Your task to perform on an android device: How much does a 2 bedroom apartment rent for in San Francisco? Image 0: 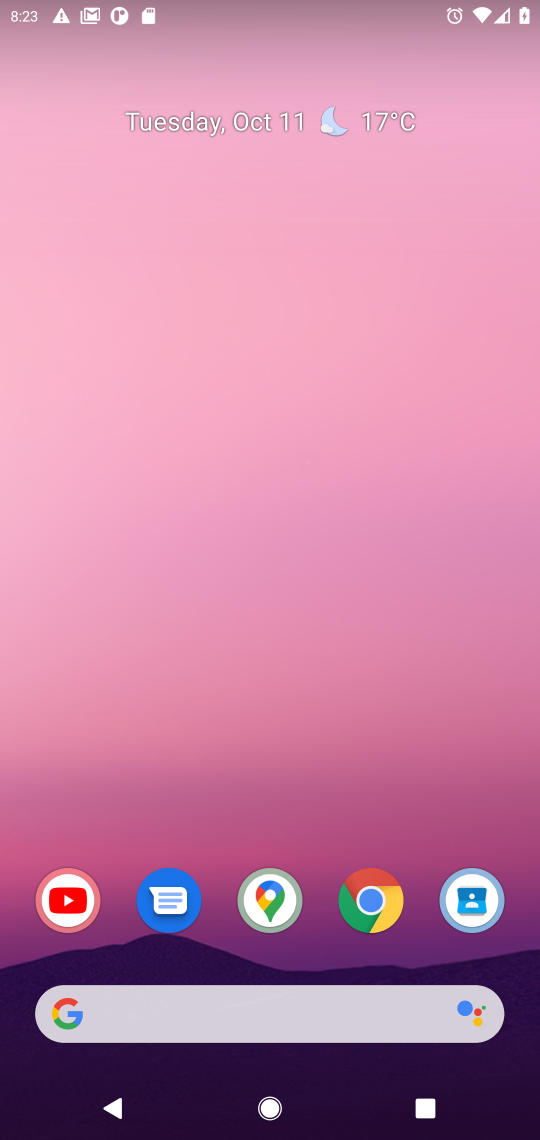
Step 0: click (382, 893)
Your task to perform on an android device: How much does a 2 bedroom apartment rent for in San Francisco? Image 1: 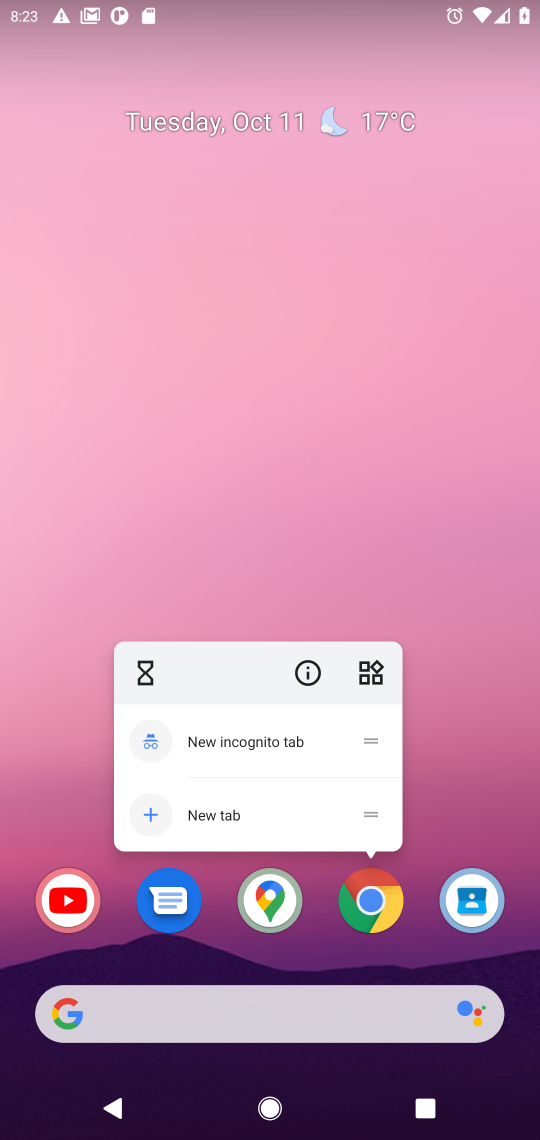
Step 1: click (382, 895)
Your task to perform on an android device: How much does a 2 bedroom apartment rent for in San Francisco? Image 2: 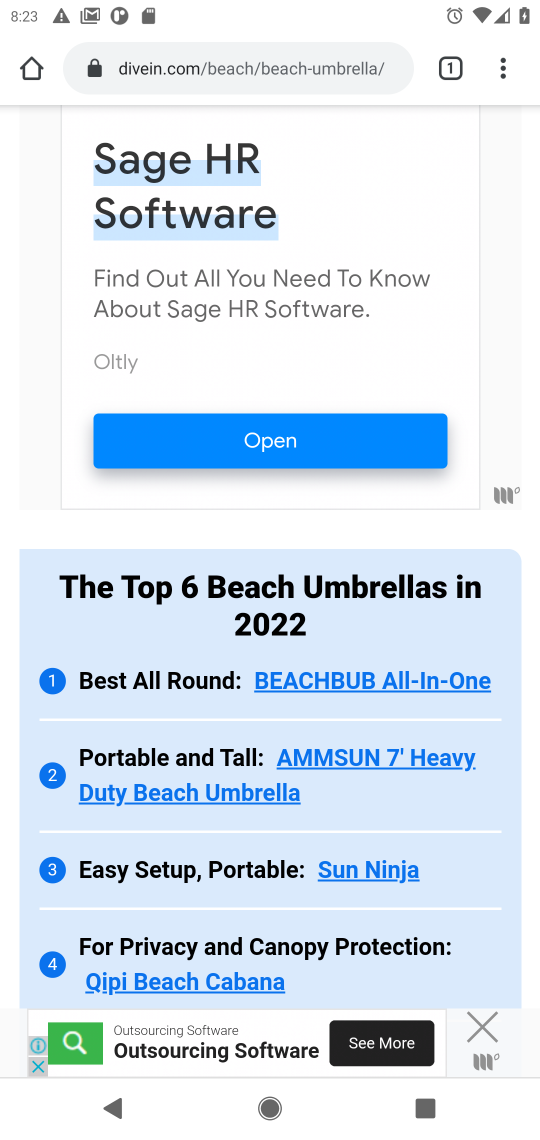
Step 2: click (363, 57)
Your task to perform on an android device: How much does a 2 bedroom apartment rent for in San Francisco? Image 3: 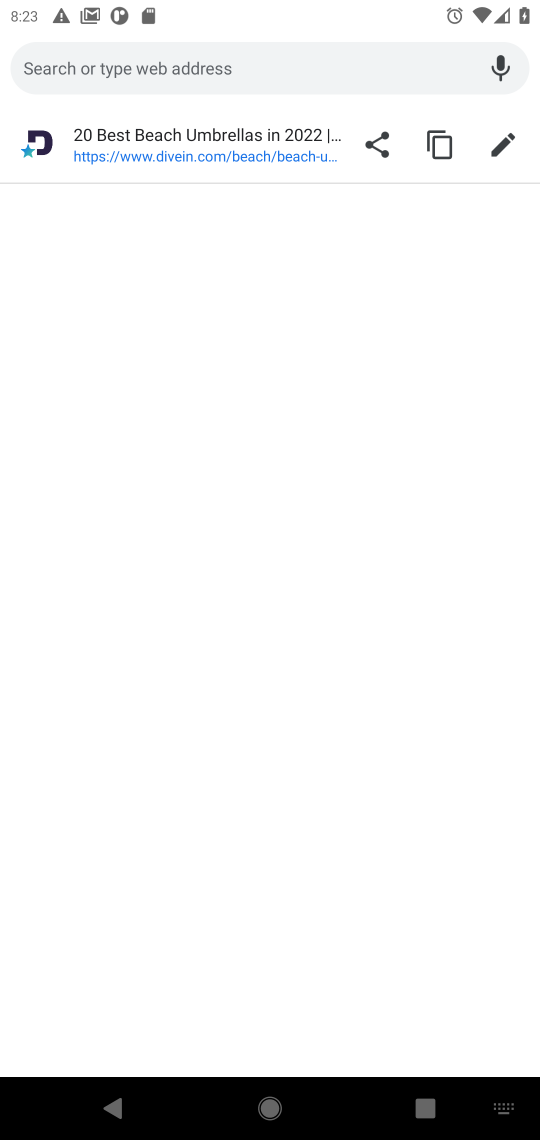
Step 3: type "2 bedroom apartment rent for in San Francisco"
Your task to perform on an android device: How much does a 2 bedroom apartment rent for in San Francisco? Image 4: 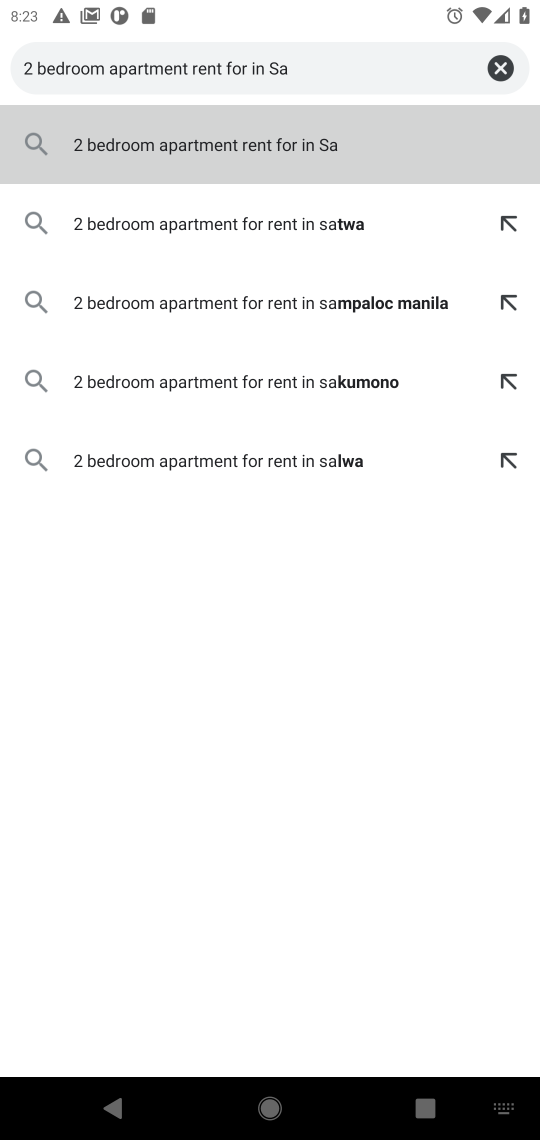
Step 4: press enter
Your task to perform on an android device: How much does a 2 bedroom apartment rent for in San Francisco? Image 5: 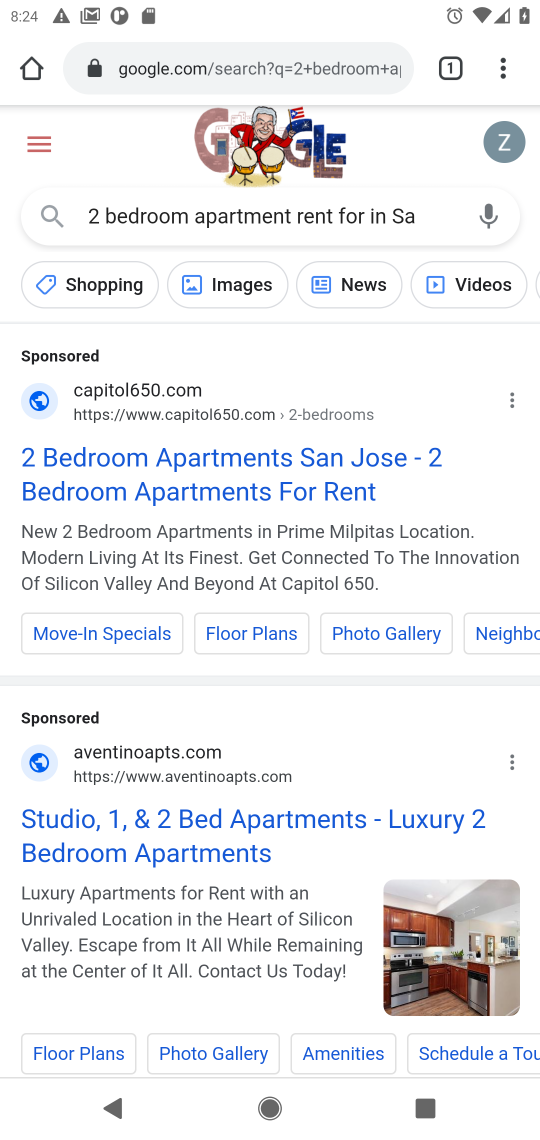
Step 5: drag from (178, 908) to (388, 325)
Your task to perform on an android device: How much does a 2 bedroom apartment rent for in San Francisco? Image 6: 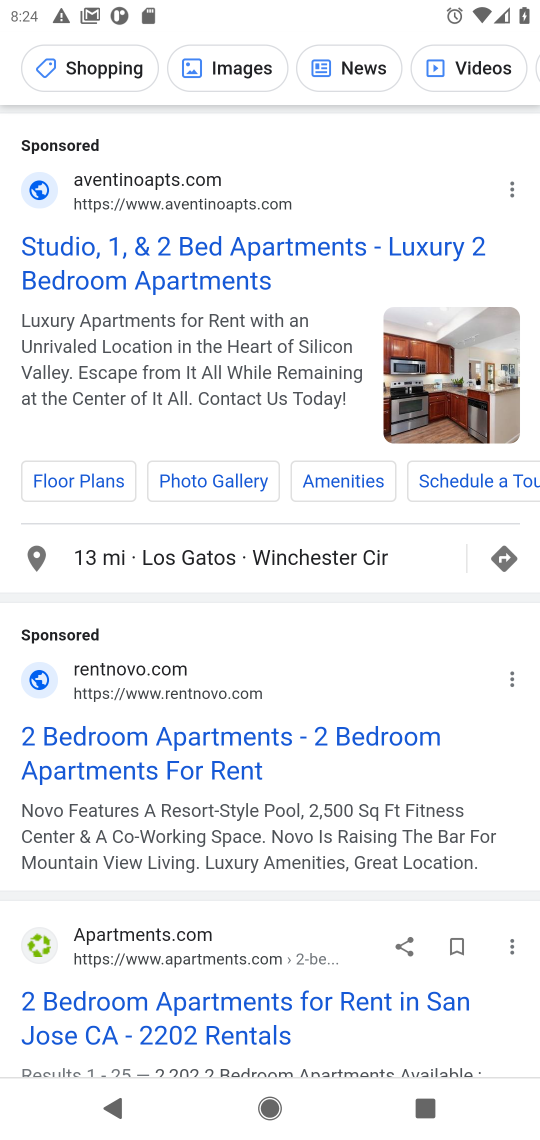
Step 6: click (216, 733)
Your task to perform on an android device: How much does a 2 bedroom apartment rent for in San Francisco? Image 7: 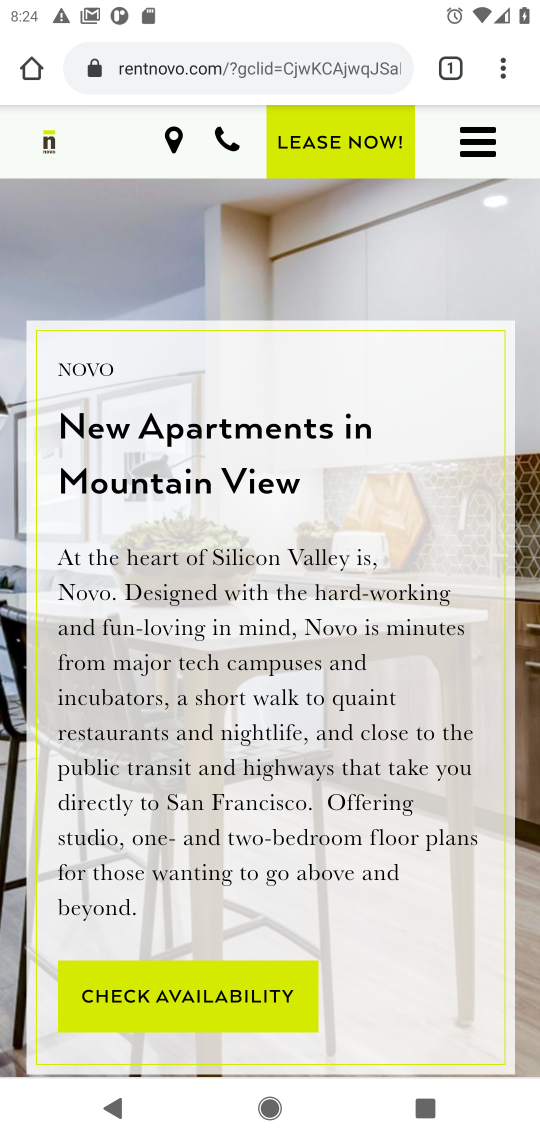
Step 7: task complete